Your task to perform on an android device: Open Yahoo.com Image 0: 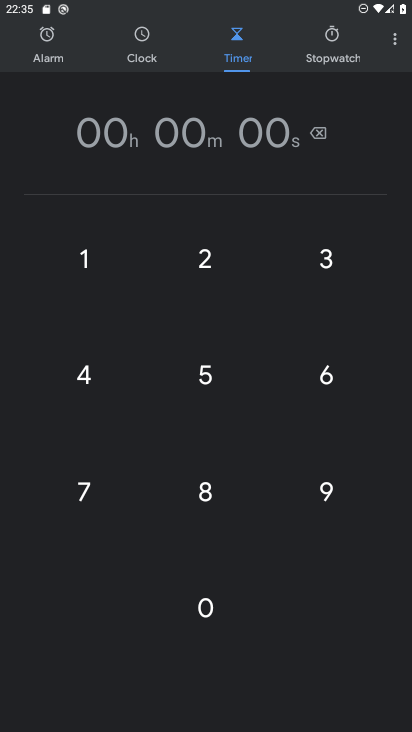
Step 0: press home button
Your task to perform on an android device: Open Yahoo.com Image 1: 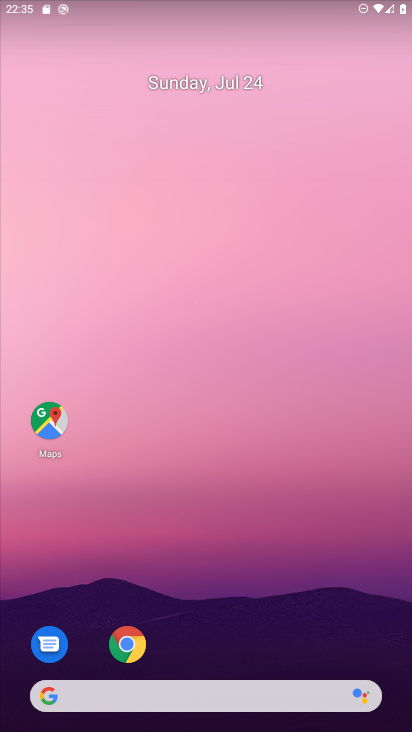
Step 1: click (128, 648)
Your task to perform on an android device: Open Yahoo.com Image 2: 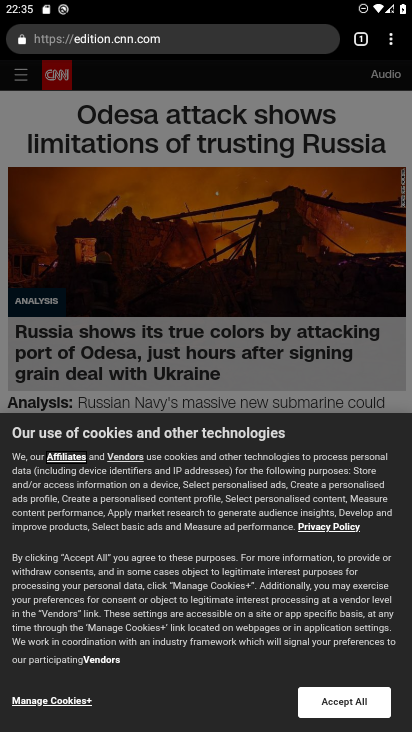
Step 2: click (189, 38)
Your task to perform on an android device: Open Yahoo.com Image 3: 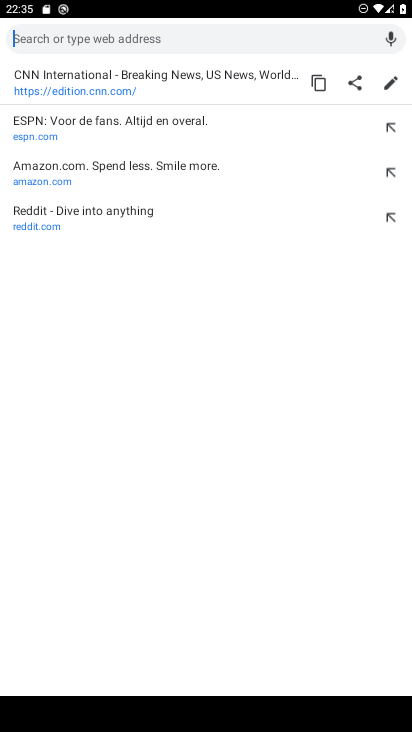
Step 3: type "yahoo.com"
Your task to perform on an android device: Open Yahoo.com Image 4: 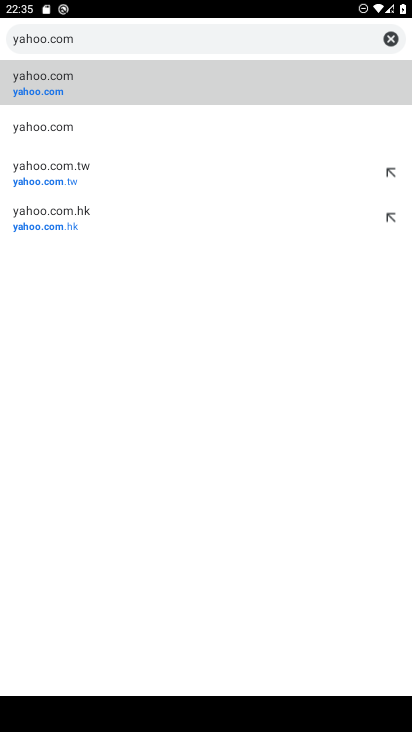
Step 4: click (38, 80)
Your task to perform on an android device: Open Yahoo.com Image 5: 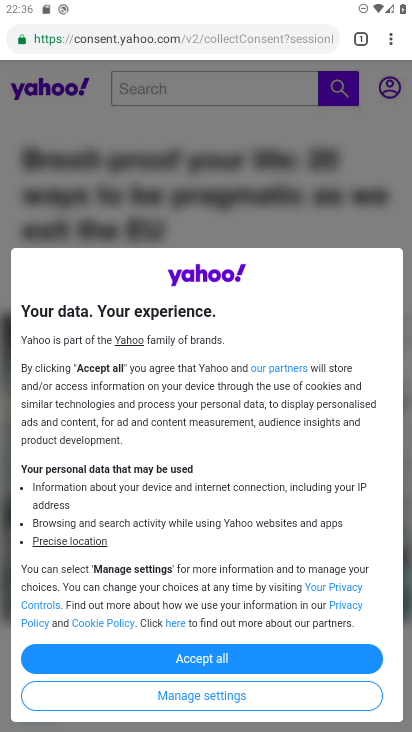
Step 5: click (195, 657)
Your task to perform on an android device: Open Yahoo.com Image 6: 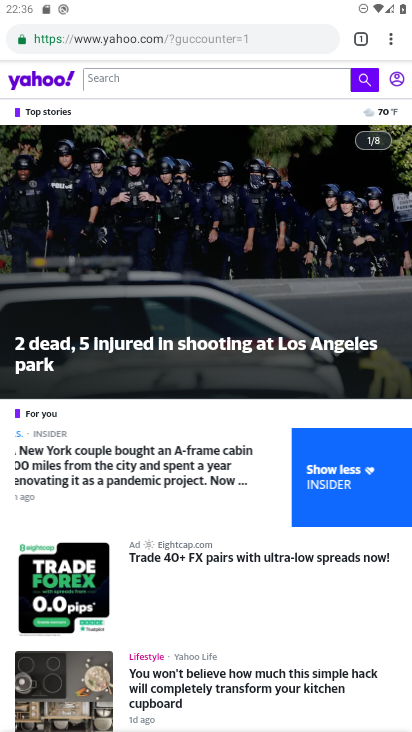
Step 6: task complete